Your task to perform on an android device: refresh tabs in the chrome app Image 0: 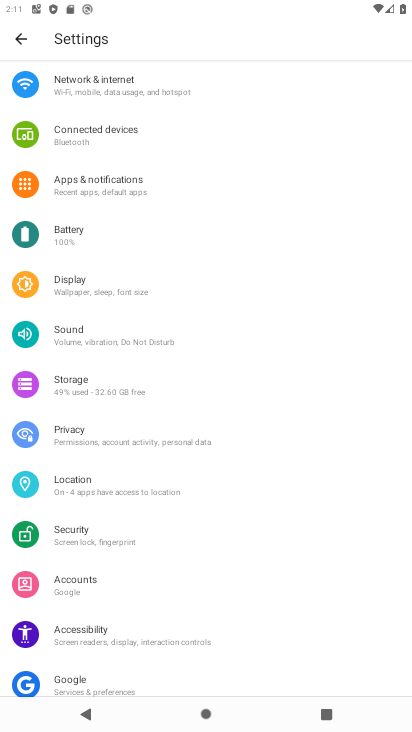
Step 0: press home button
Your task to perform on an android device: refresh tabs in the chrome app Image 1: 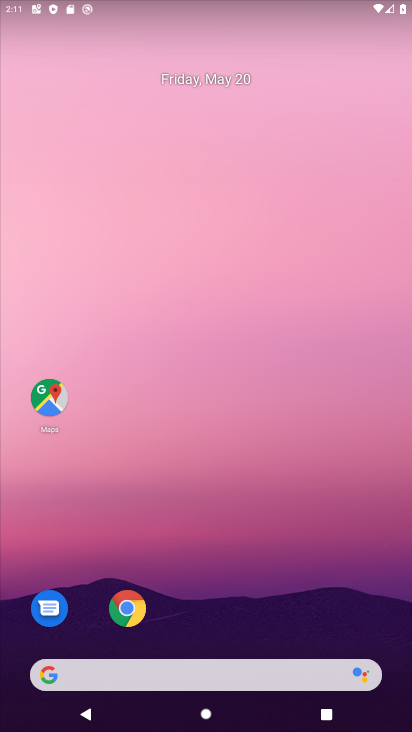
Step 1: click (124, 606)
Your task to perform on an android device: refresh tabs in the chrome app Image 2: 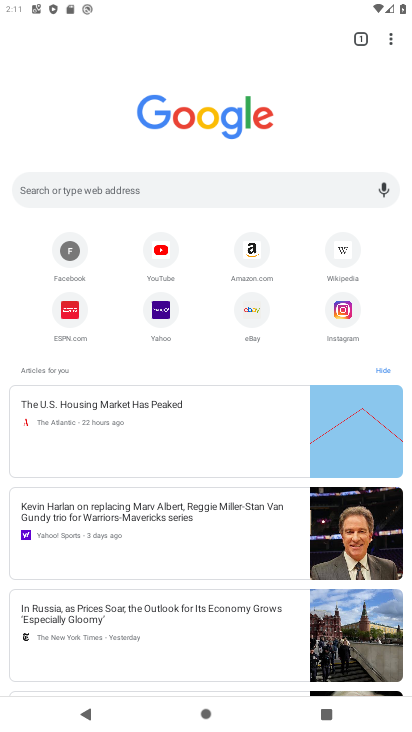
Step 2: click (395, 34)
Your task to perform on an android device: refresh tabs in the chrome app Image 3: 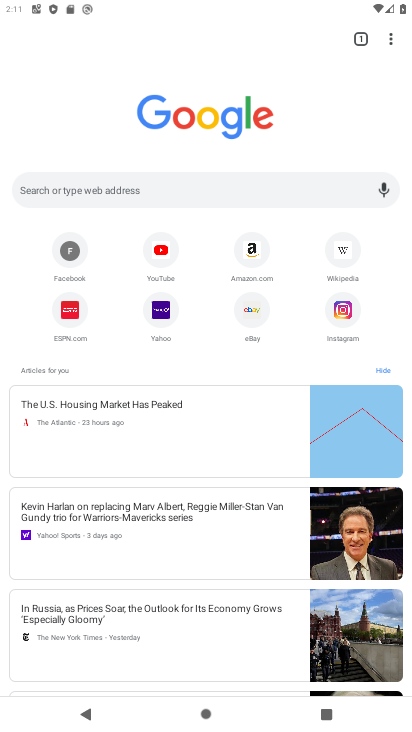
Step 3: task complete